Your task to perform on an android device: turn off smart reply in the gmail app Image 0: 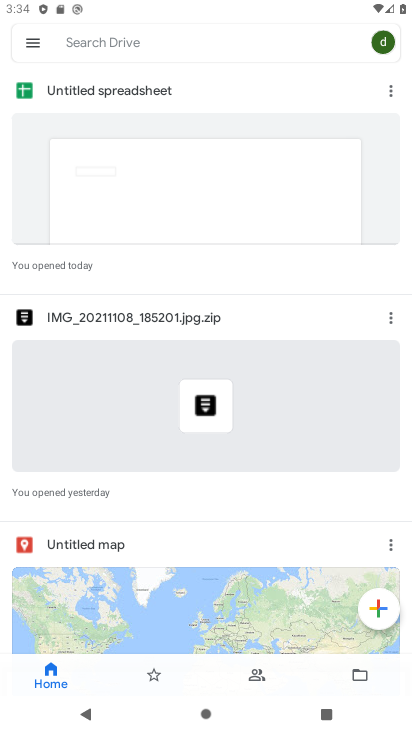
Step 0: press home button
Your task to perform on an android device: turn off smart reply in the gmail app Image 1: 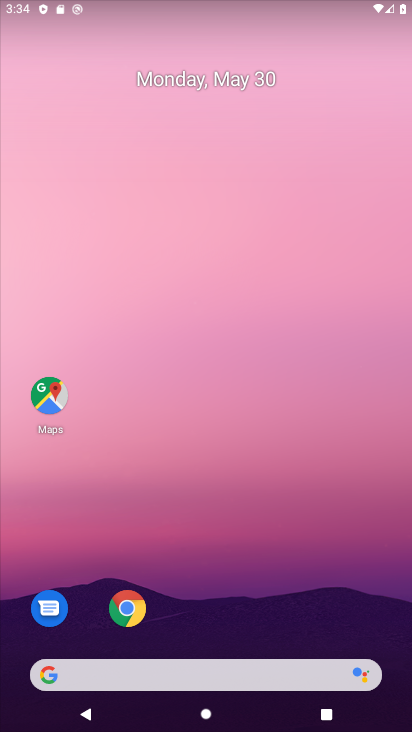
Step 1: drag from (247, 639) to (329, 114)
Your task to perform on an android device: turn off smart reply in the gmail app Image 2: 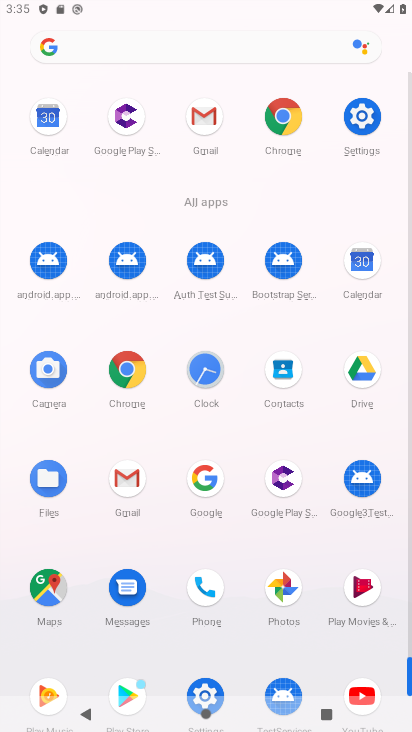
Step 2: click (123, 488)
Your task to perform on an android device: turn off smart reply in the gmail app Image 3: 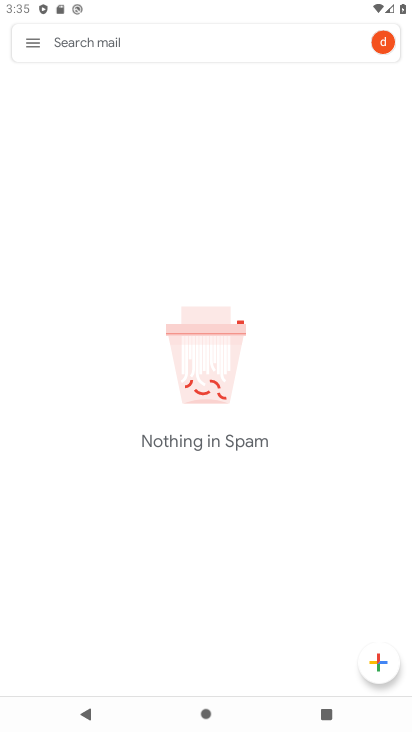
Step 3: click (49, 47)
Your task to perform on an android device: turn off smart reply in the gmail app Image 4: 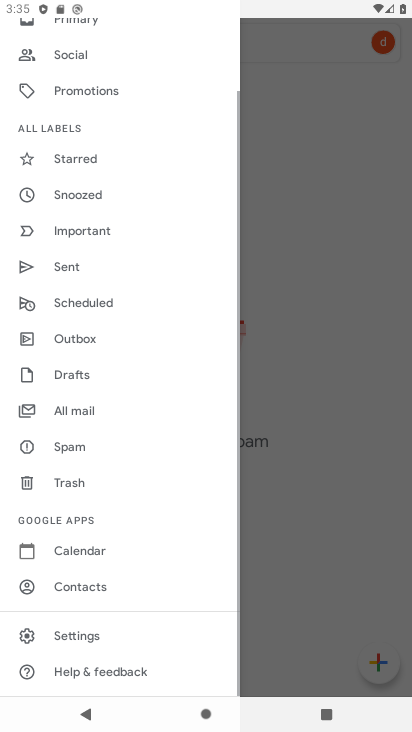
Step 4: drag from (147, 624) to (205, 355)
Your task to perform on an android device: turn off smart reply in the gmail app Image 5: 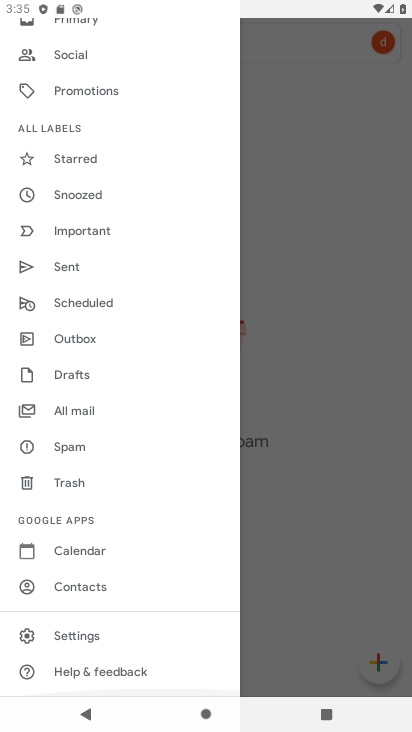
Step 5: click (136, 627)
Your task to perform on an android device: turn off smart reply in the gmail app Image 6: 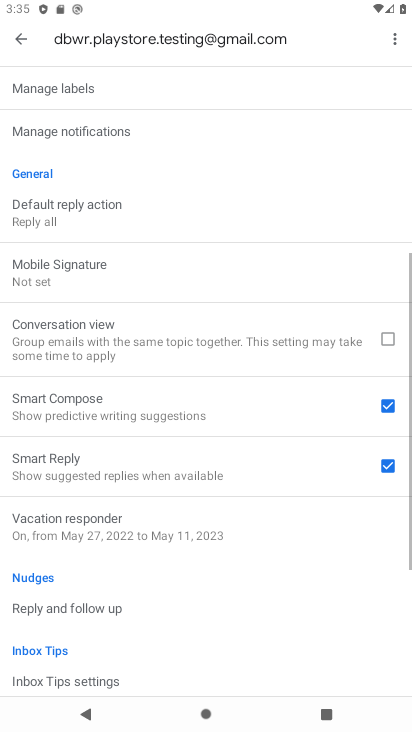
Step 6: drag from (170, 665) to (260, 199)
Your task to perform on an android device: turn off smart reply in the gmail app Image 7: 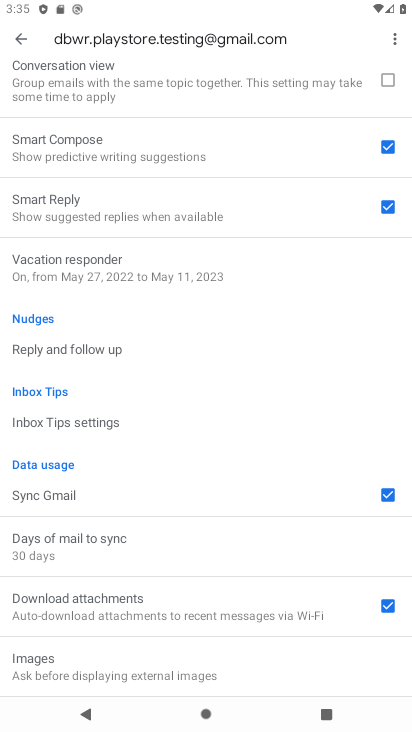
Step 7: click (392, 199)
Your task to perform on an android device: turn off smart reply in the gmail app Image 8: 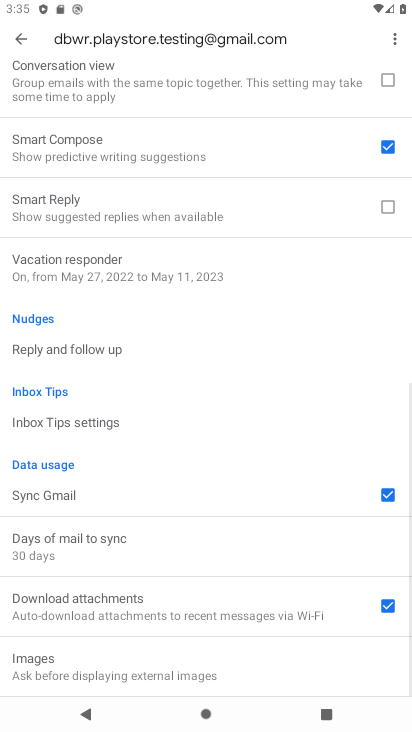
Step 8: task complete